Your task to perform on an android device: open device folders in google photos Image 0: 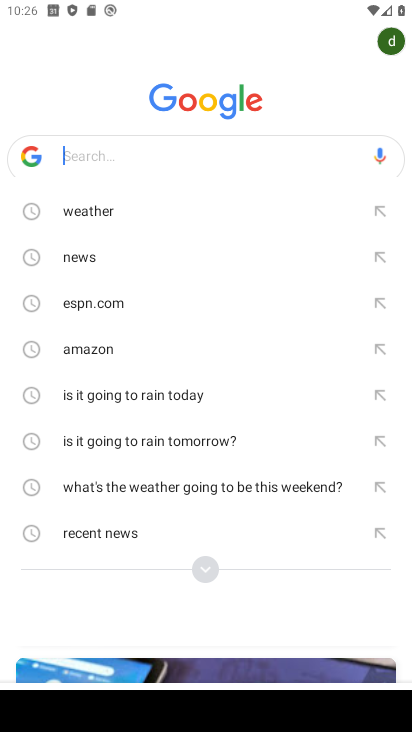
Step 0: press home button
Your task to perform on an android device: open device folders in google photos Image 1: 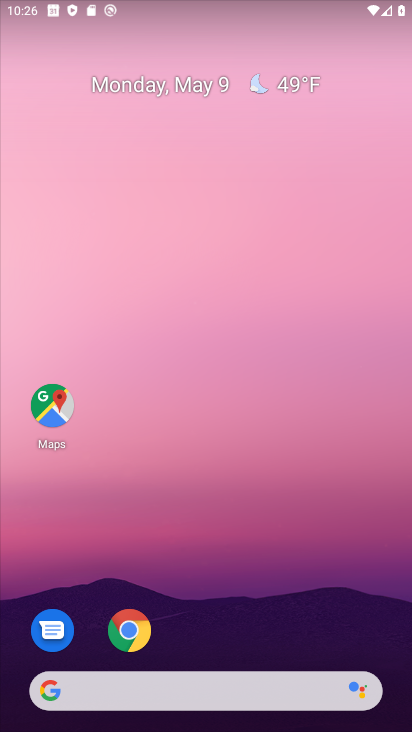
Step 1: drag from (205, 612) to (219, 179)
Your task to perform on an android device: open device folders in google photos Image 2: 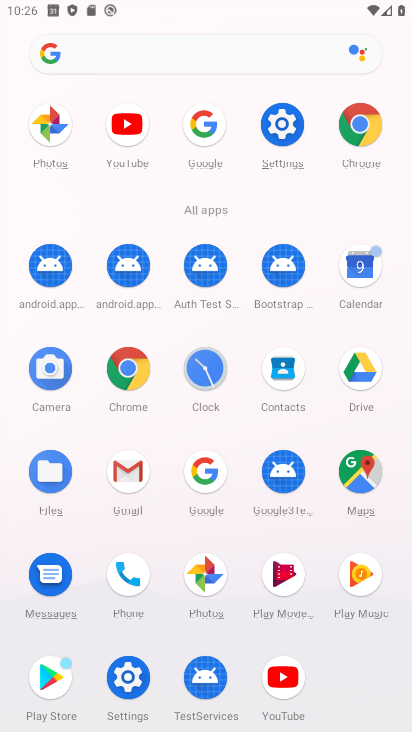
Step 2: click (194, 589)
Your task to perform on an android device: open device folders in google photos Image 3: 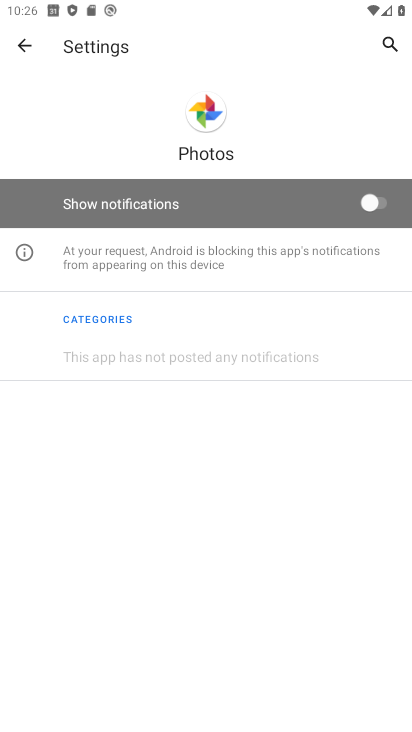
Step 3: click (23, 41)
Your task to perform on an android device: open device folders in google photos Image 4: 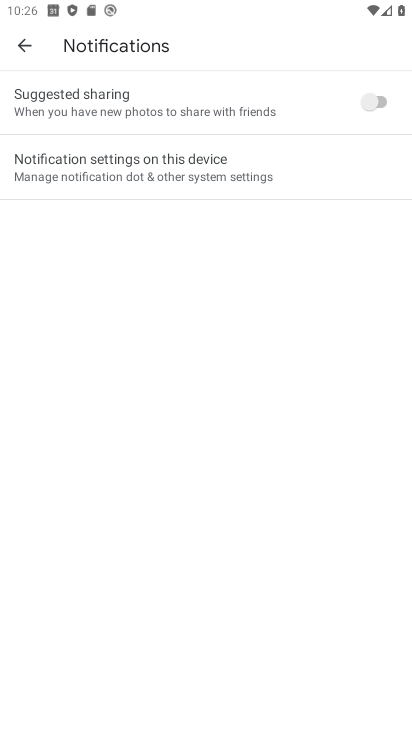
Step 4: click (22, 42)
Your task to perform on an android device: open device folders in google photos Image 5: 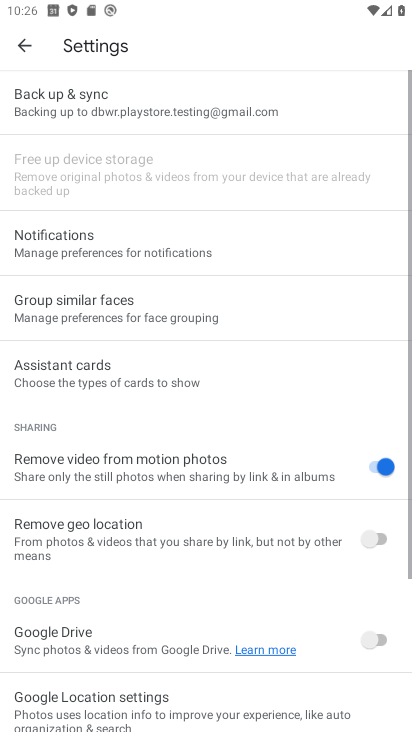
Step 5: click (22, 42)
Your task to perform on an android device: open device folders in google photos Image 6: 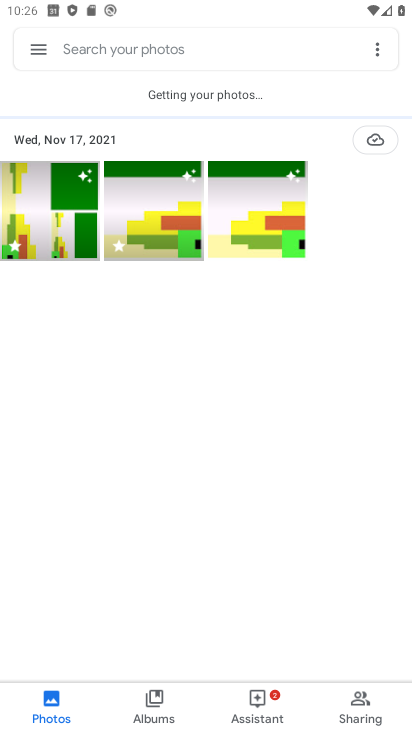
Step 6: click (22, 42)
Your task to perform on an android device: open device folders in google photos Image 7: 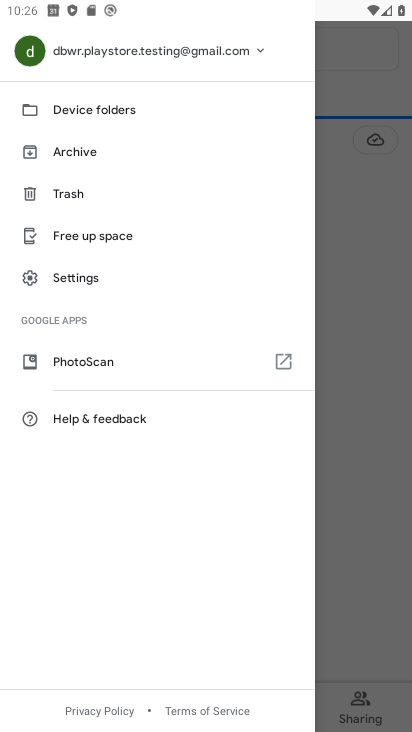
Step 7: click (124, 109)
Your task to perform on an android device: open device folders in google photos Image 8: 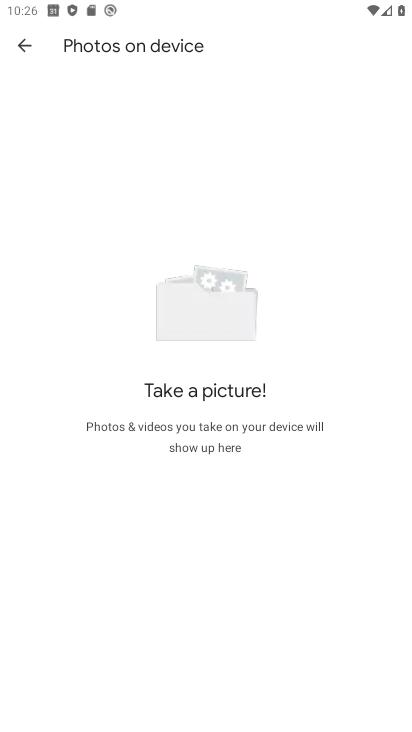
Step 8: task complete